Your task to perform on an android device: Open Google Image 0: 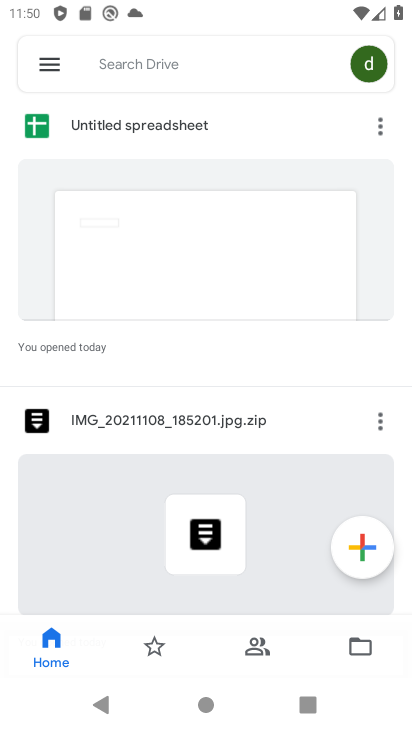
Step 0: press back button
Your task to perform on an android device: Open Google Image 1: 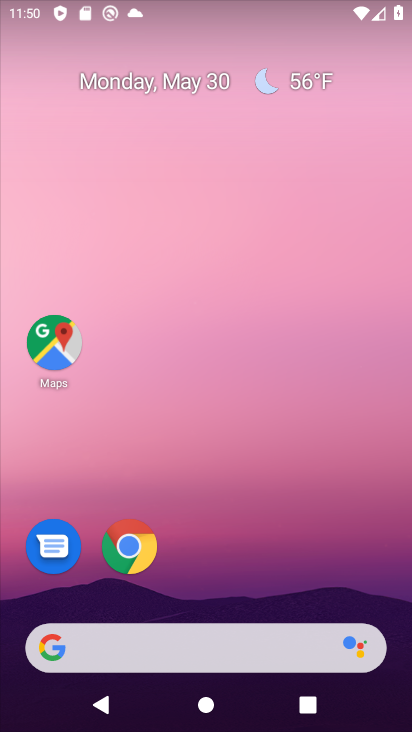
Step 1: drag from (264, 684) to (206, 221)
Your task to perform on an android device: Open Google Image 2: 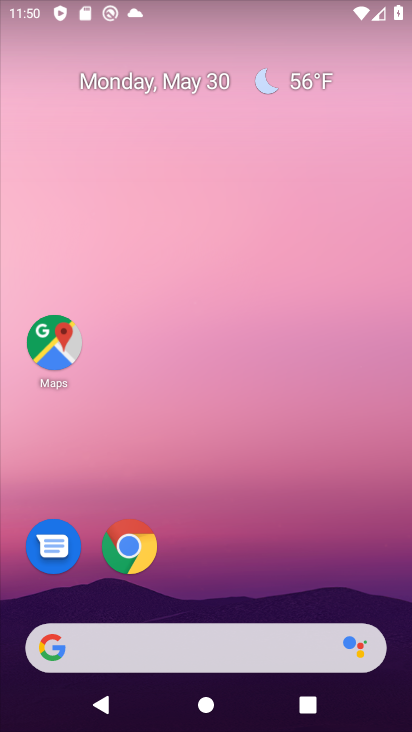
Step 2: drag from (264, 671) to (203, 40)
Your task to perform on an android device: Open Google Image 3: 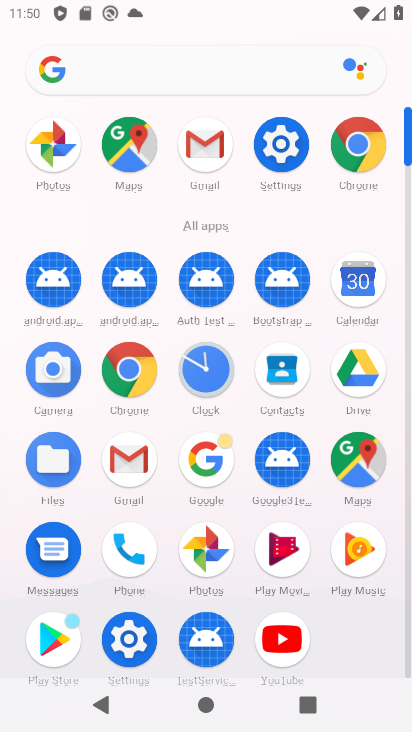
Step 3: drag from (241, 490) to (202, 81)
Your task to perform on an android device: Open Google Image 4: 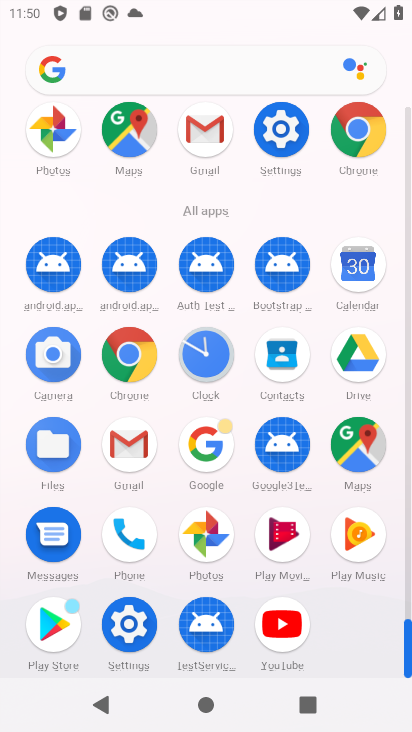
Step 4: click (211, 456)
Your task to perform on an android device: Open Google Image 5: 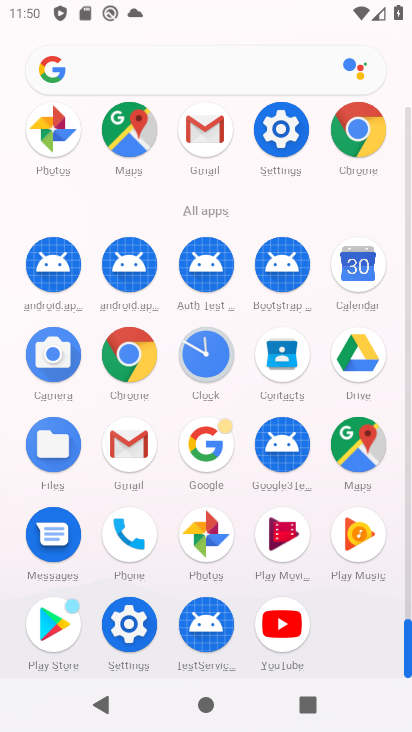
Step 5: click (210, 459)
Your task to perform on an android device: Open Google Image 6: 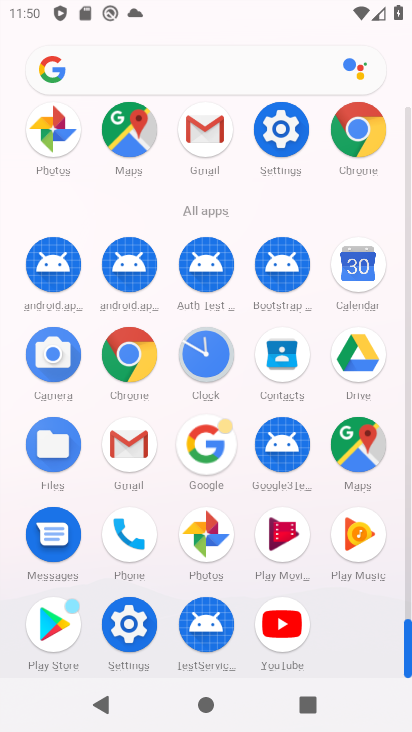
Step 6: click (210, 459)
Your task to perform on an android device: Open Google Image 7: 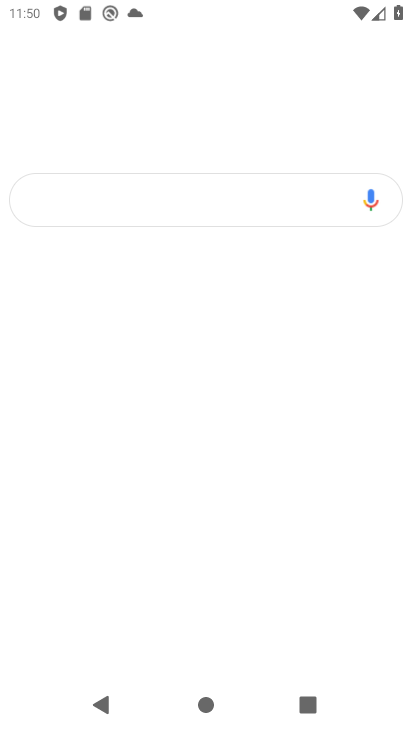
Step 7: click (205, 455)
Your task to perform on an android device: Open Google Image 8: 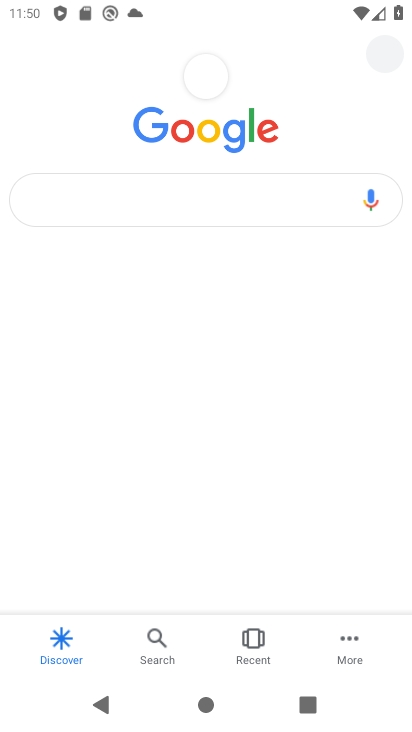
Step 8: click (206, 452)
Your task to perform on an android device: Open Google Image 9: 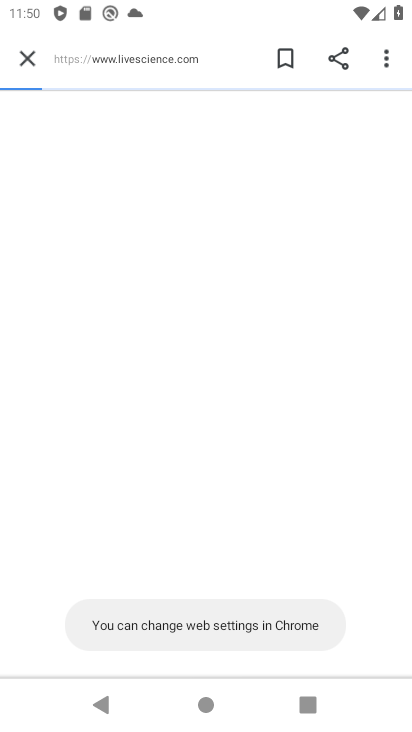
Step 9: task complete